Your task to perform on an android device: delete a single message in the gmail app Image 0: 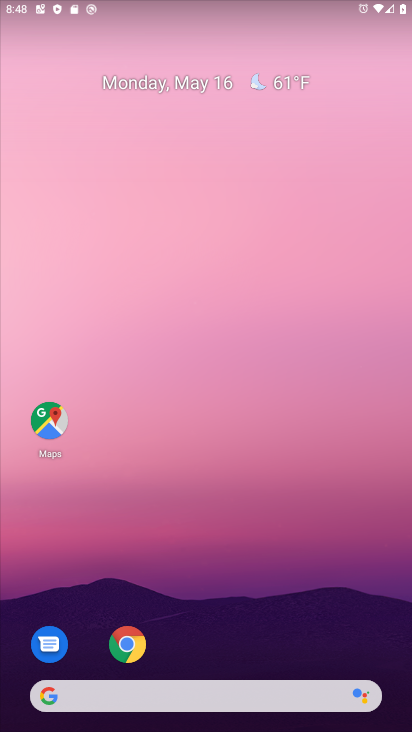
Step 0: drag from (233, 546) to (243, 112)
Your task to perform on an android device: delete a single message in the gmail app Image 1: 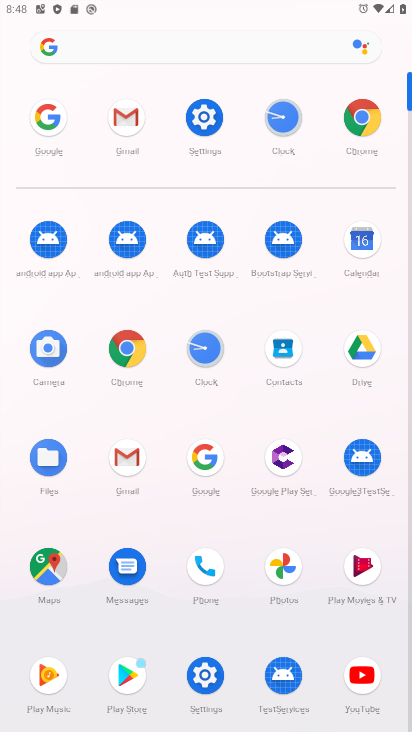
Step 1: click (126, 113)
Your task to perform on an android device: delete a single message in the gmail app Image 2: 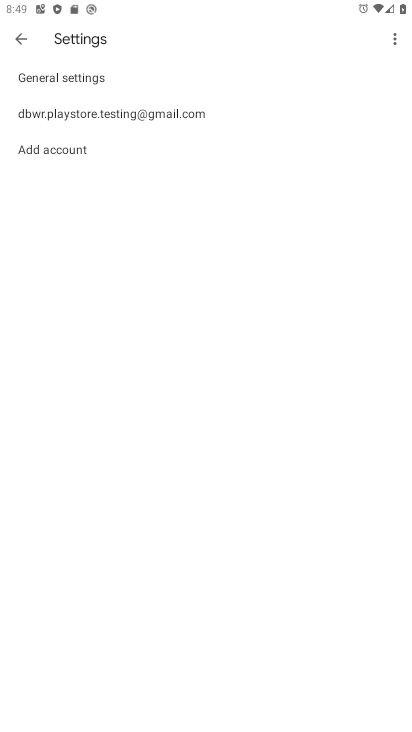
Step 2: press back button
Your task to perform on an android device: delete a single message in the gmail app Image 3: 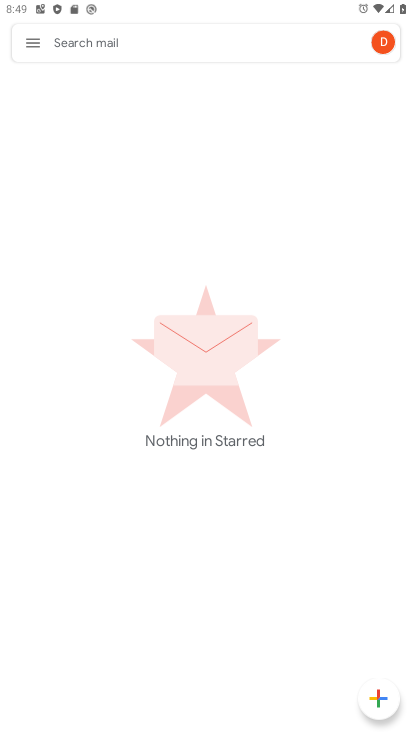
Step 3: click (34, 40)
Your task to perform on an android device: delete a single message in the gmail app Image 4: 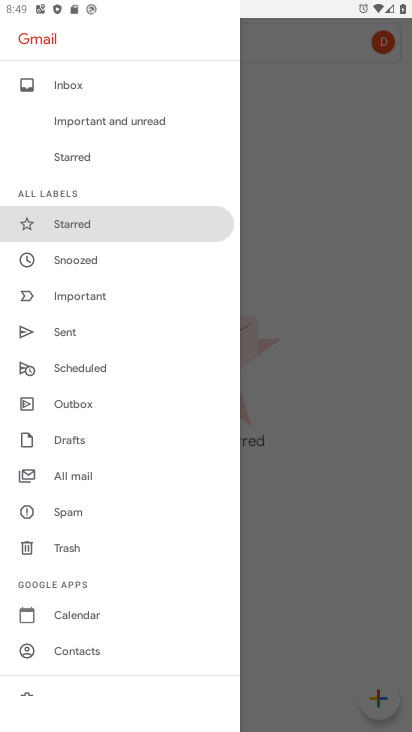
Step 4: click (68, 476)
Your task to perform on an android device: delete a single message in the gmail app Image 5: 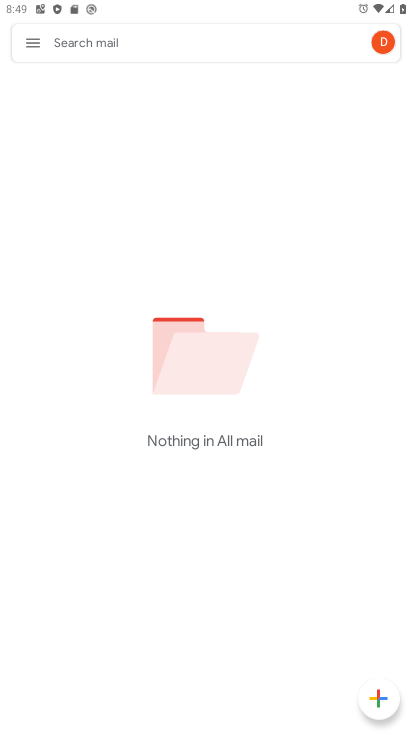
Step 5: task complete